Your task to perform on an android device: Clear the shopping cart on walmart. Search for razer huntsman on walmart, select the first entry, and add it to the cart. Image 0: 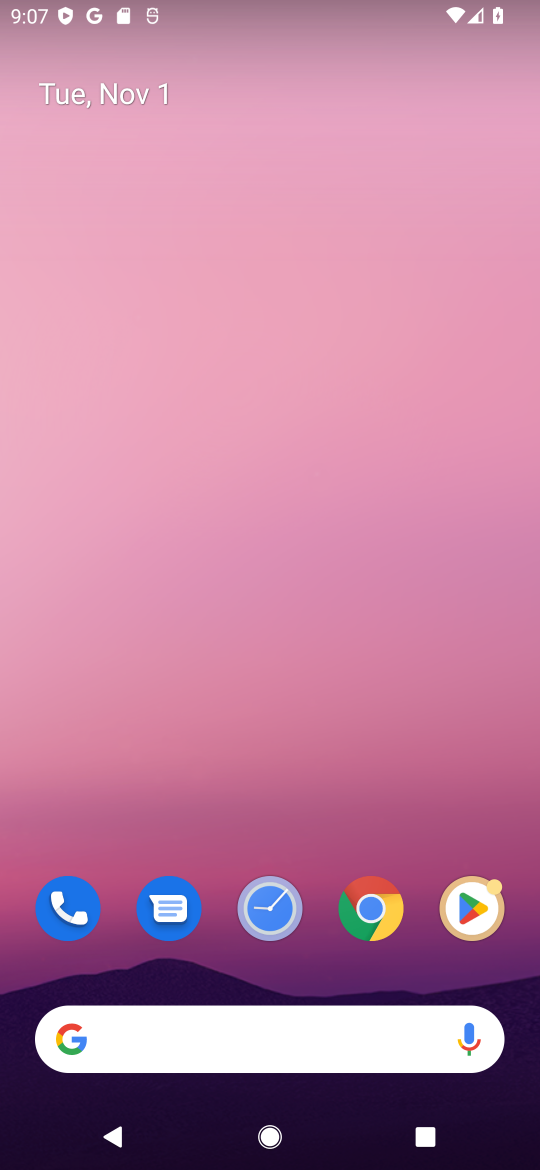
Step 0: click (376, 926)
Your task to perform on an android device: Clear the shopping cart on walmart. Search for razer huntsman on walmart, select the first entry, and add it to the cart. Image 1: 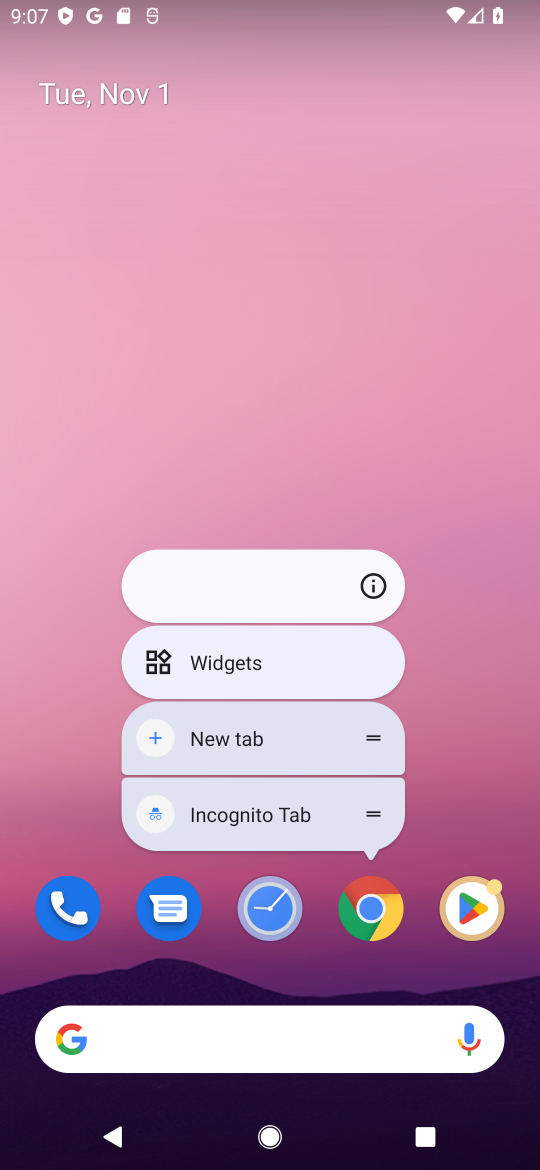
Step 1: click (365, 921)
Your task to perform on an android device: Clear the shopping cart on walmart. Search for razer huntsman on walmart, select the first entry, and add it to the cart. Image 2: 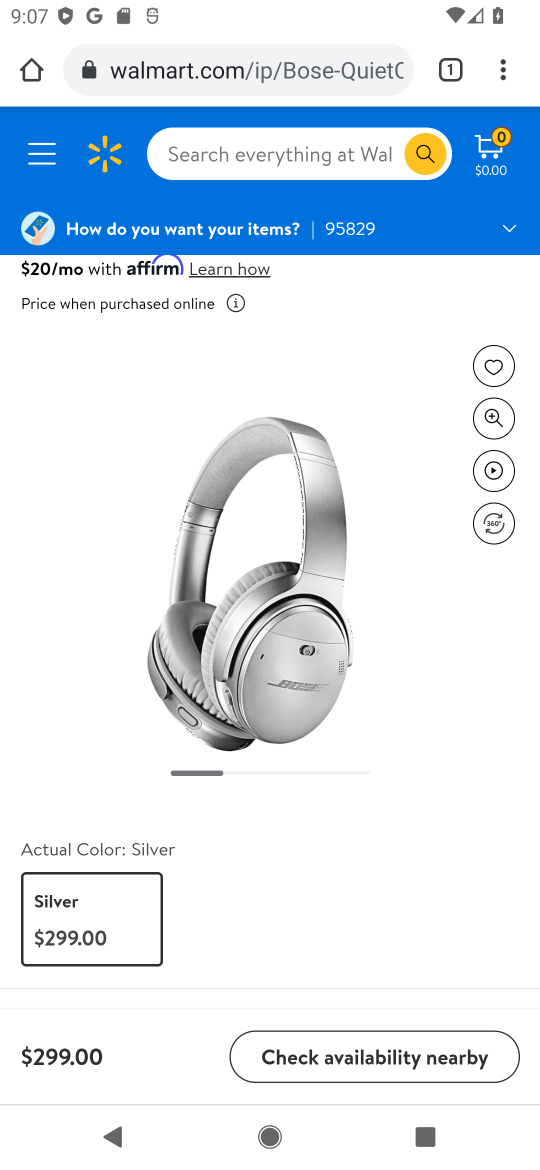
Step 2: click (252, 70)
Your task to perform on an android device: Clear the shopping cart on walmart. Search for razer huntsman on walmart, select the first entry, and add it to the cart. Image 3: 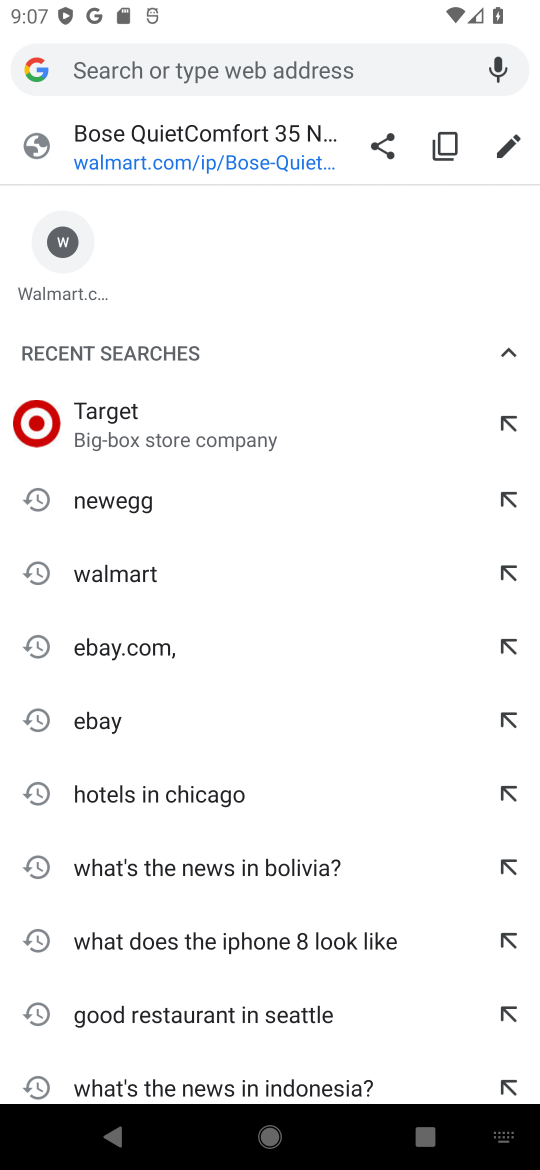
Step 3: type "walmart"
Your task to perform on an android device: Clear the shopping cart on walmart. Search for razer huntsman on walmart, select the first entry, and add it to the cart. Image 4: 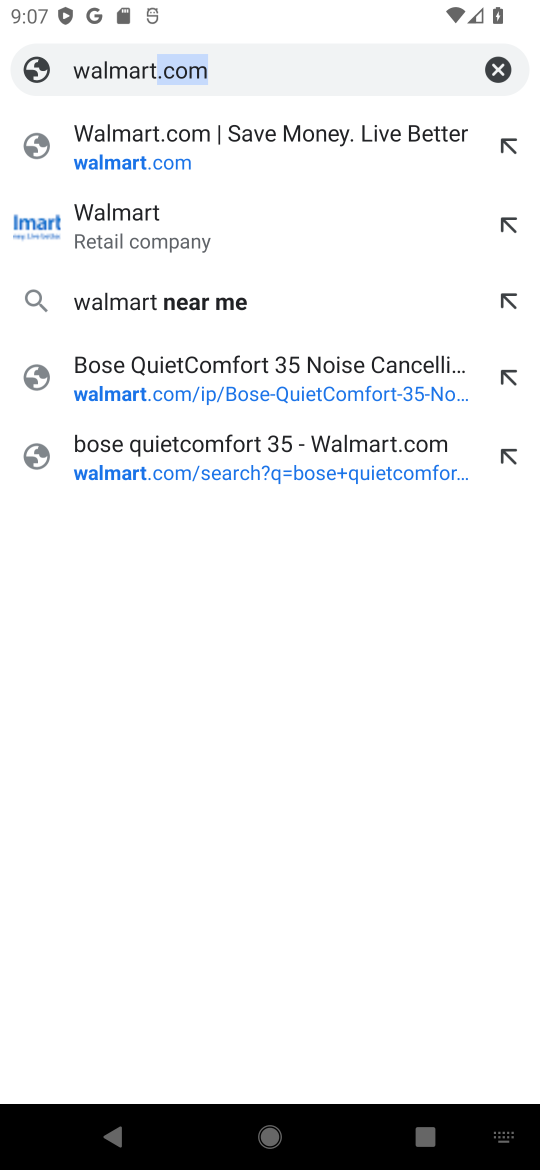
Step 4: press enter
Your task to perform on an android device: Clear the shopping cart on walmart. Search for razer huntsman on walmart, select the first entry, and add it to the cart. Image 5: 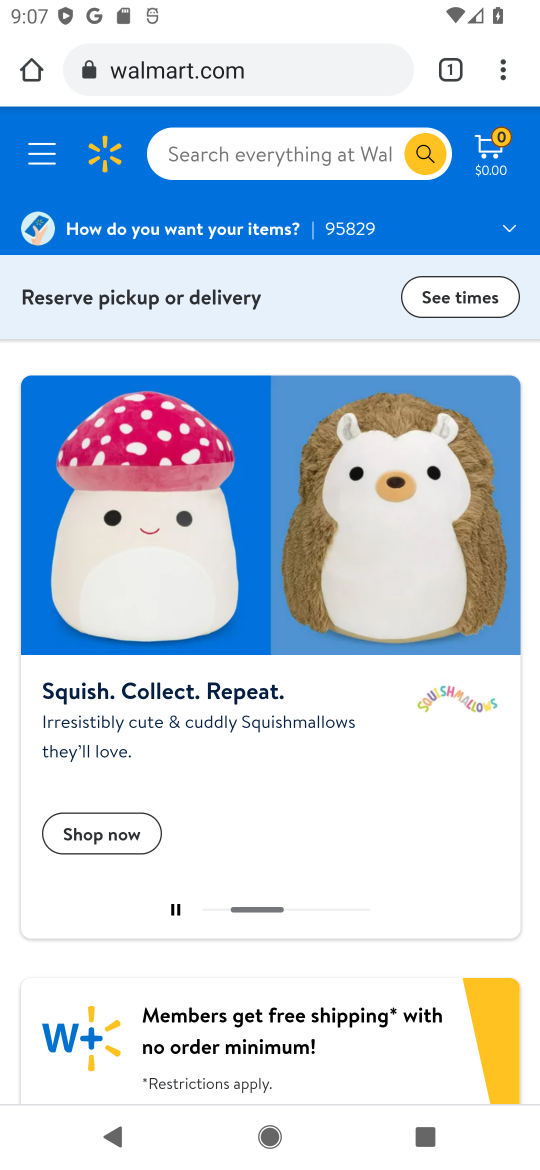
Step 5: click (491, 165)
Your task to perform on an android device: Clear the shopping cart on walmart. Search for razer huntsman on walmart, select the first entry, and add it to the cart. Image 6: 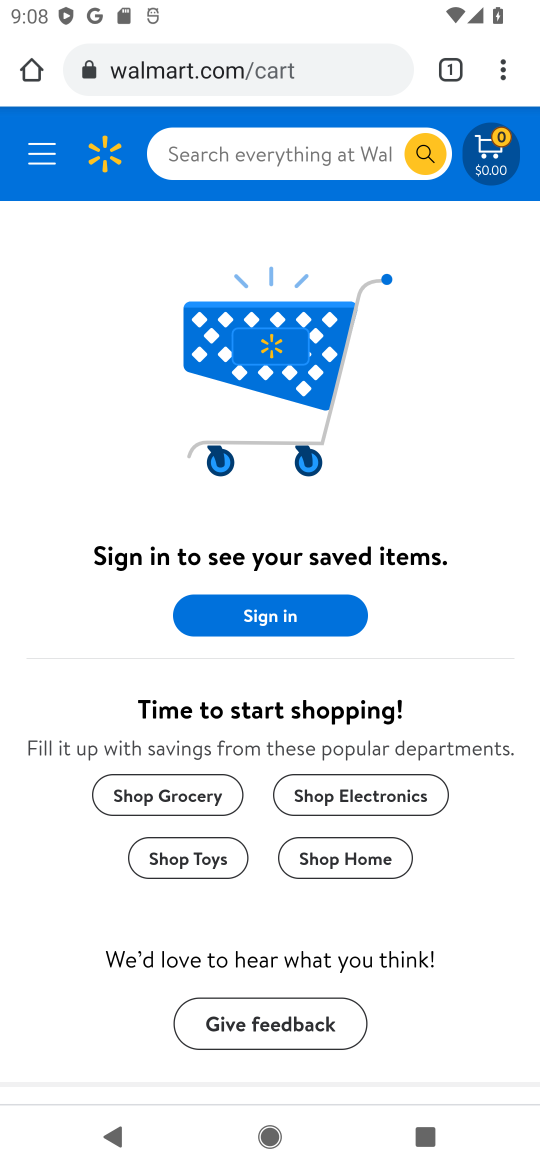
Step 6: click (310, 170)
Your task to perform on an android device: Clear the shopping cart on walmart. Search for razer huntsman on walmart, select the first entry, and add it to the cart. Image 7: 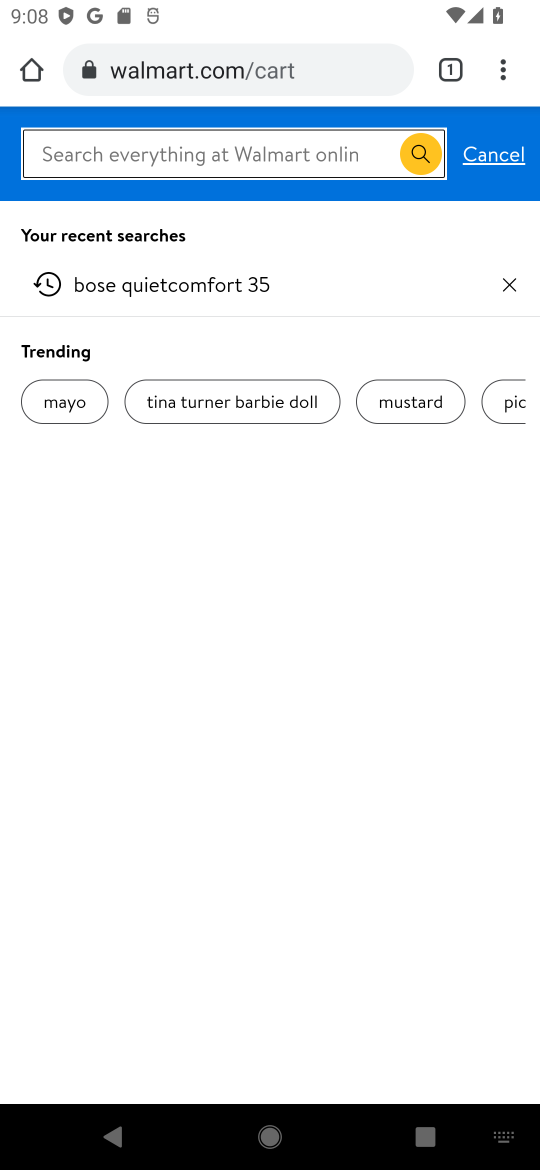
Step 7: type "razer huntsman"
Your task to perform on an android device: Clear the shopping cart on walmart. Search for razer huntsman on walmart, select the first entry, and add it to the cart. Image 8: 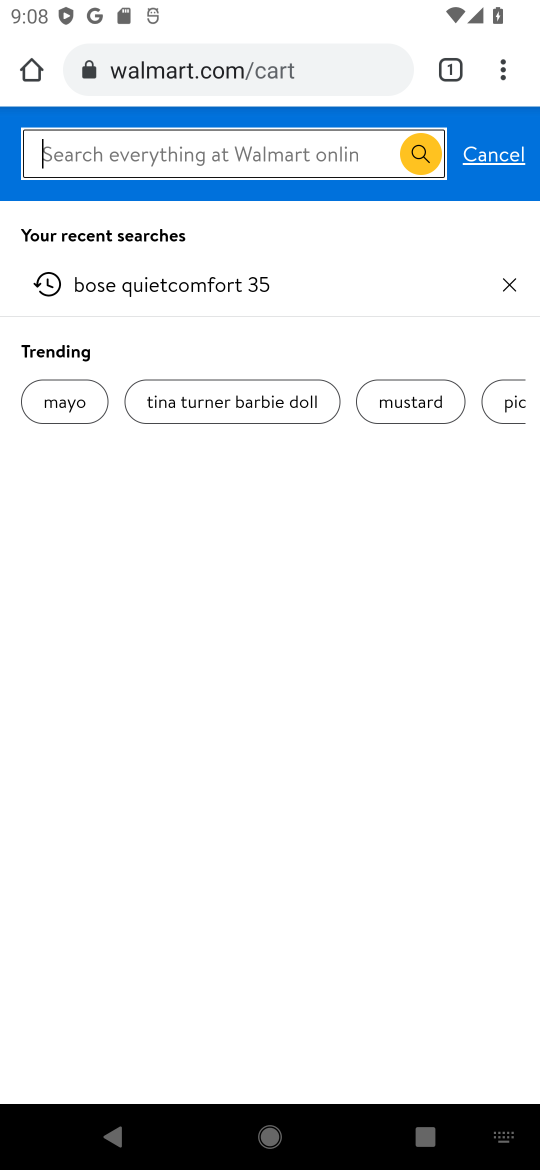
Step 8: type ""
Your task to perform on an android device: Clear the shopping cart on walmart. Search for razer huntsman on walmart, select the first entry, and add it to the cart. Image 9: 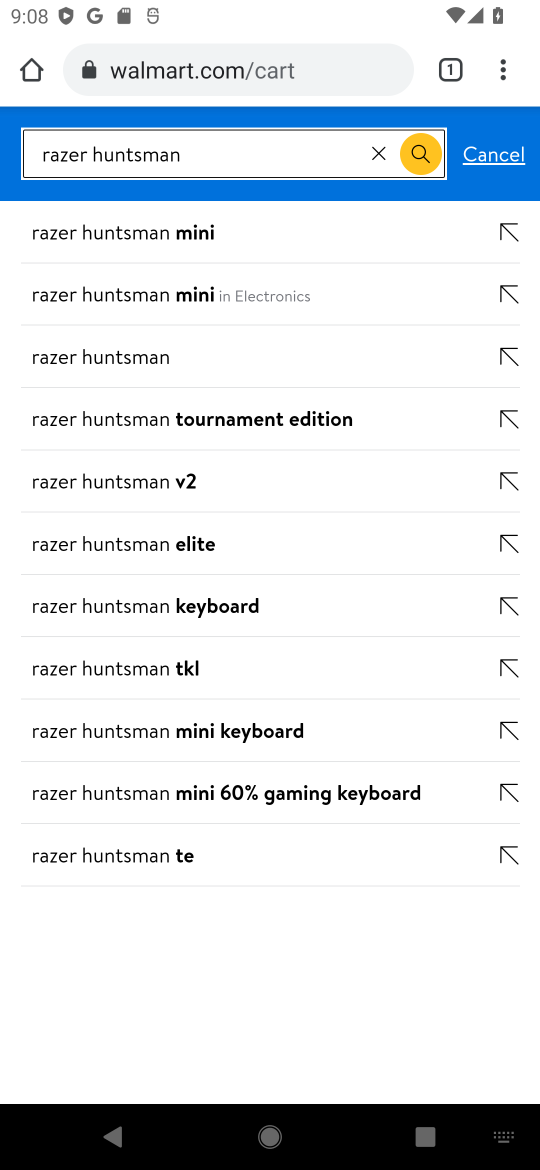
Step 9: press enter
Your task to perform on an android device: Clear the shopping cart on walmart. Search for razer huntsman on walmart, select the first entry, and add it to the cart. Image 10: 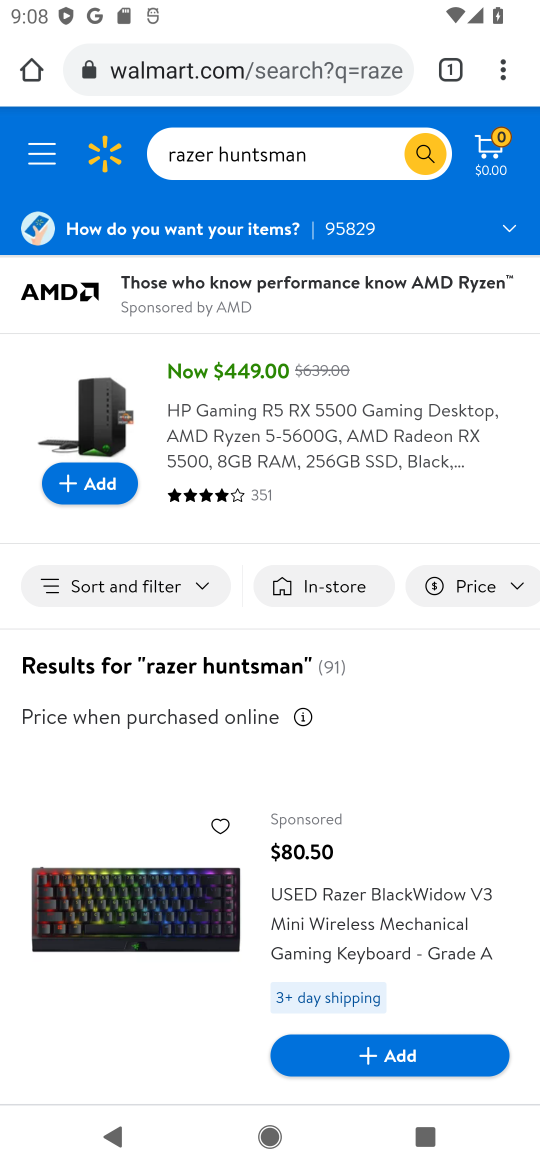
Step 10: drag from (403, 911) to (389, 369)
Your task to perform on an android device: Clear the shopping cart on walmart. Search for razer huntsman on walmart, select the first entry, and add it to the cart. Image 11: 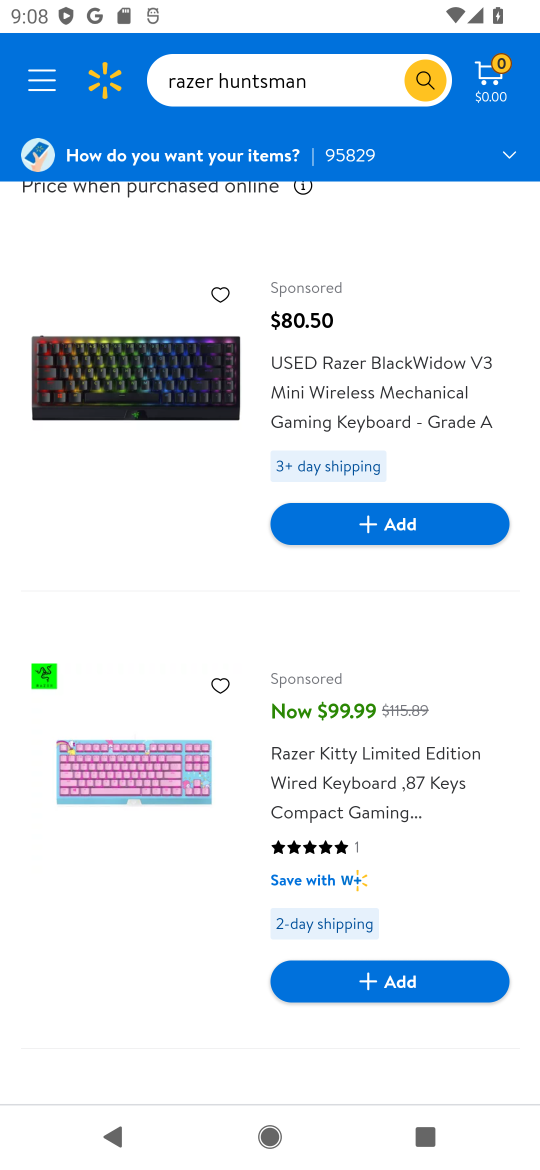
Step 11: drag from (383, 994) to (371, 402)
Your task to perform on an android device: Clear the shopping cart on walmart. Search for razer huntsman on walmart, select the first entry, and add it to the cart. Image 12: 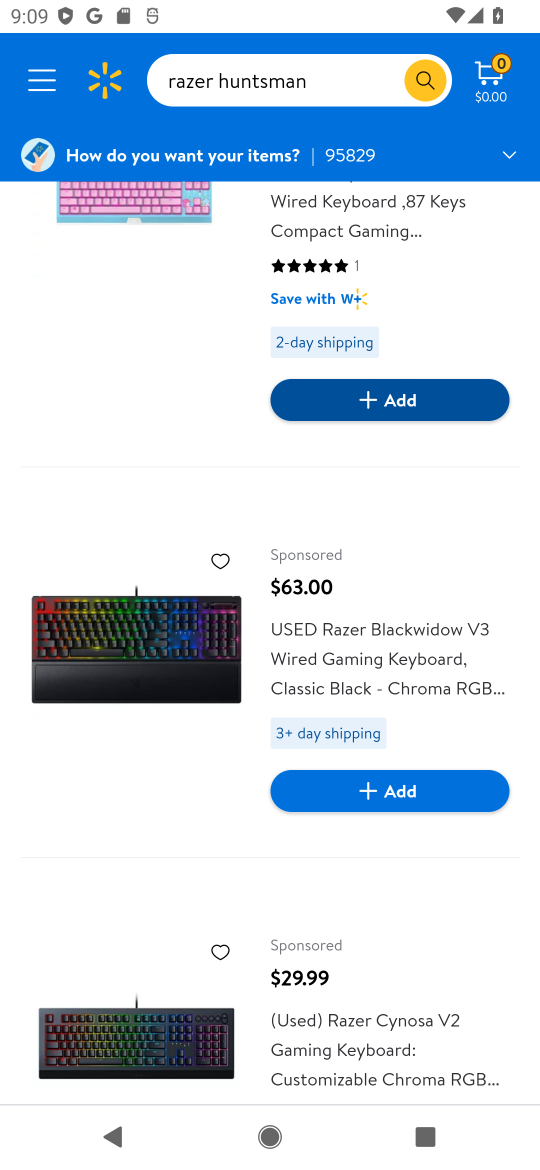
Step 12: drag from (359, 1017) to (361, 369)
Your task to perform on an android device: Clear the shopping cart on walmart. Search for razer huntsman on walmart, select the first entry, and add it to the cart. Image 13: 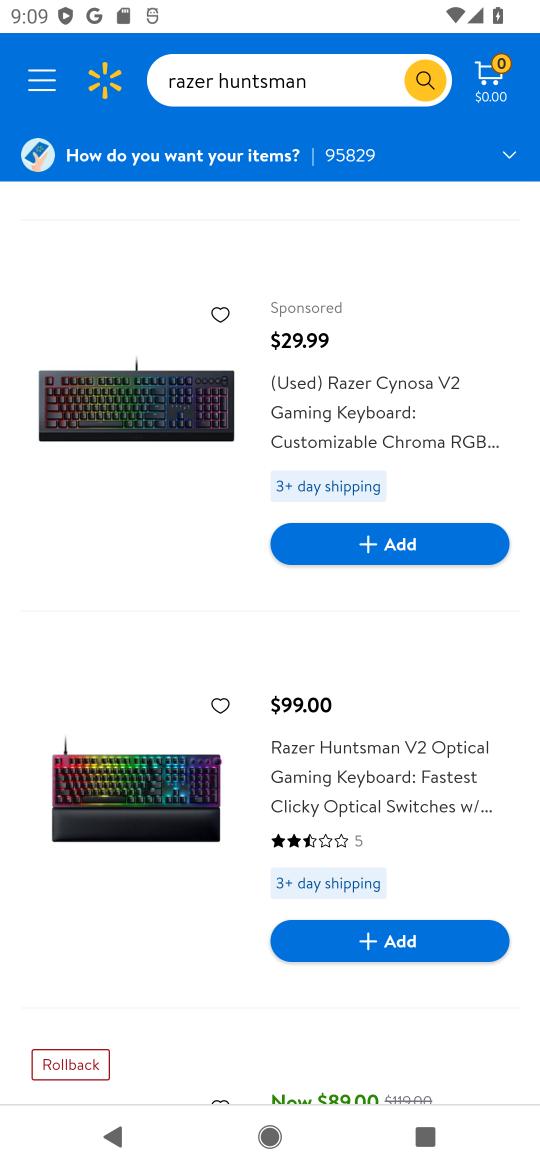
Step 13: click (369, 783)
Your task to perform on an android device: Clear the shopping cart on walmart. Search for razer huntsman on walmart, select the first entry, and add it to the cart. Image 14: 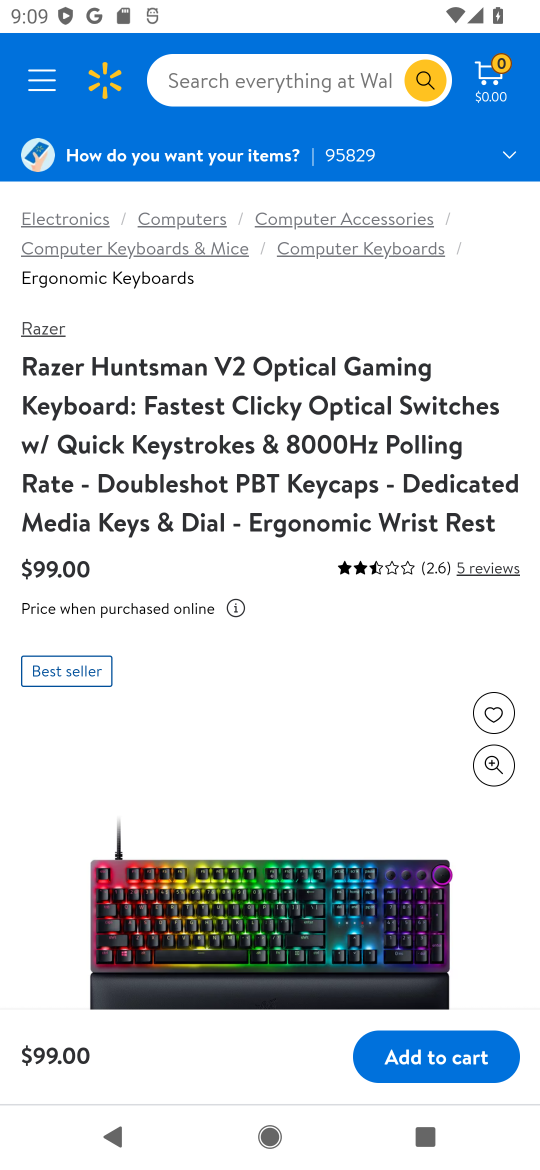
Step 14: click (428, 1052)
Your task to perform on an android device: Clear the shopping cart on walmart. Search for razer huntsman on walmart, select the first entry, and add it to the cart. Image 15: 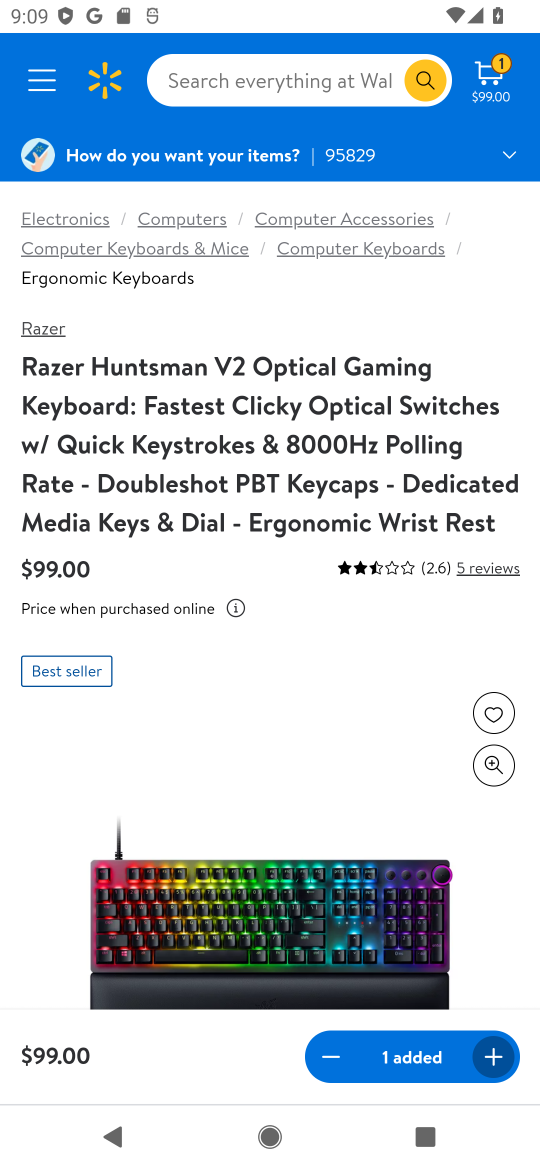
Step 15: drag from (399, 999) to (404, 482)
Your task to perform on an android device: Clear the shopping cart on walmart. Search for razer huntsman on walmart, select the first entry, and add it to the cart. Image 16: 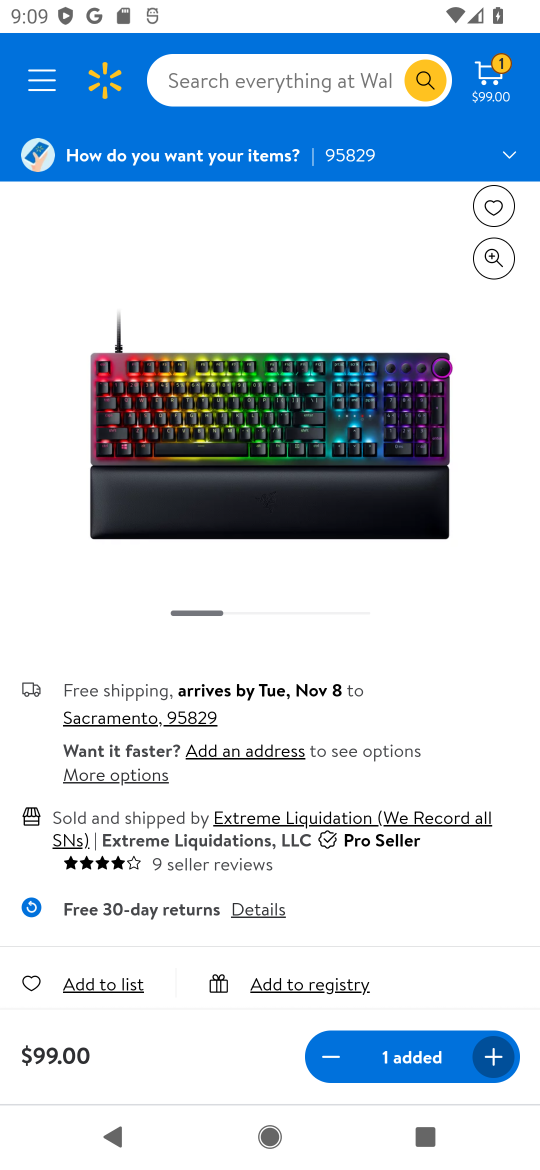
Step 16: click (496, 91)
Your task to perform on an android device: Clear the shopping cart on walmart. Search for razer huntsman on walmart, select the first entry, and add it to the cart. Image 17: 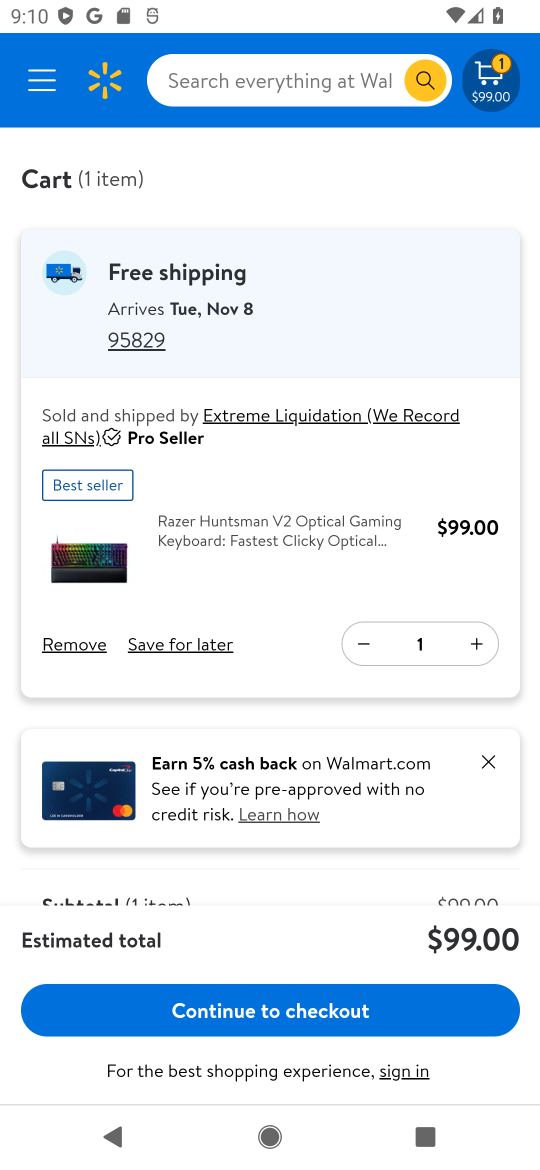
Step 17: click (303, 1016)
Your task to perform on an android device: Clear the shopping cart on walmart. Search for razer huntsman on walmart, select the first entry, and add it to the cart. Image 18: 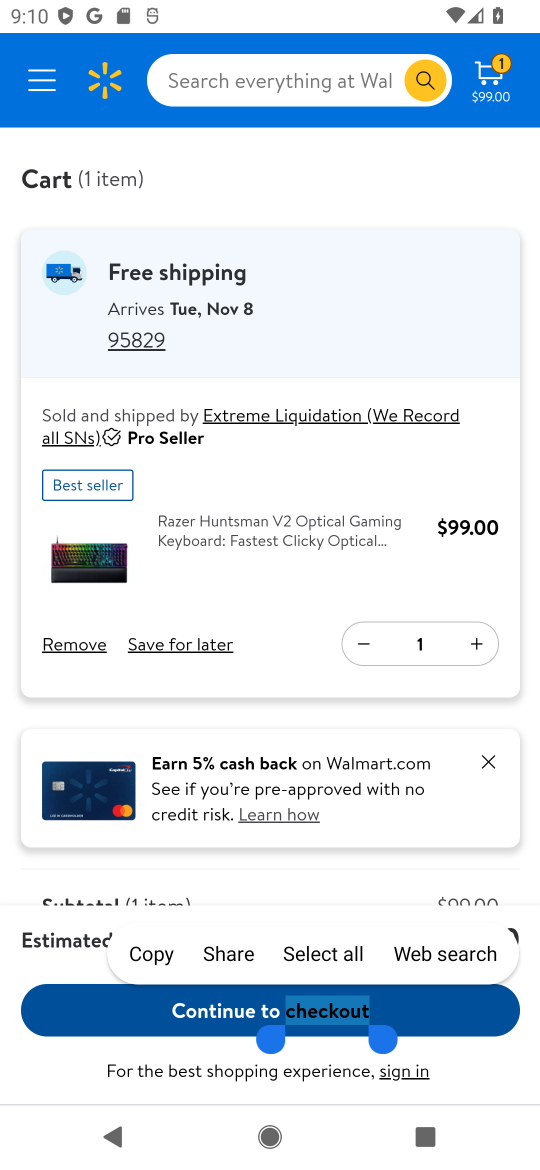
Step 18: click (175, 1027)
Your task to perform on an android device: Clear the shopping cart on walmart. Search for razer huntsman on walmart, select the first entry, and add it to the cart. Image 19: 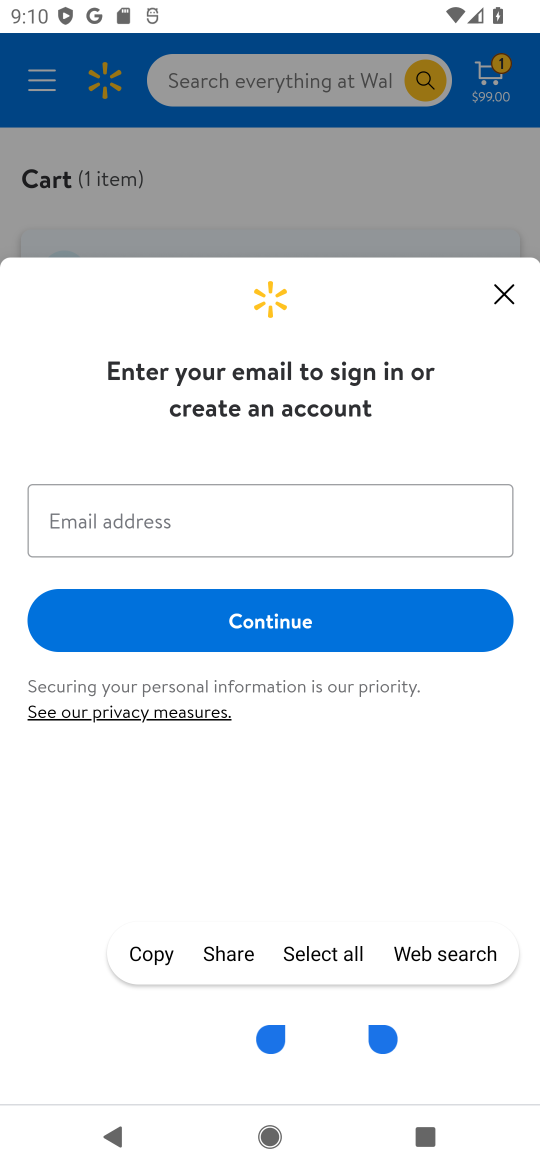
Step 19: click (515, 292)
Your task to perform on an android device: Clear the shopping cart on walmart. Search for razer huntsman on walmart, select the first entry, and add it to the cart. Image 20: 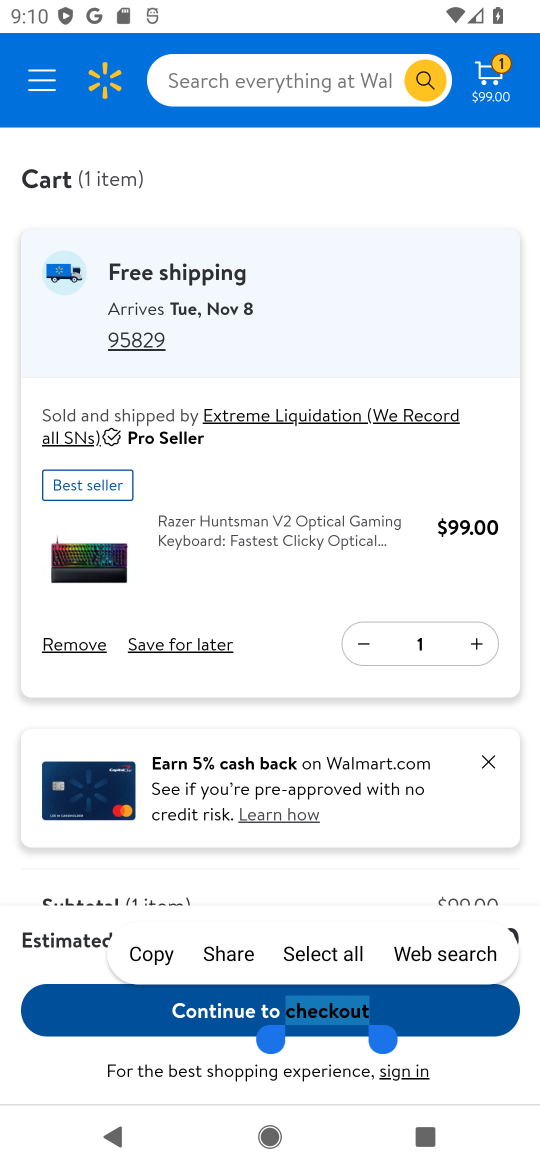
Step 20: task complete